Your task to perform on an android device: visit the assistant section in the google photos Image 0: 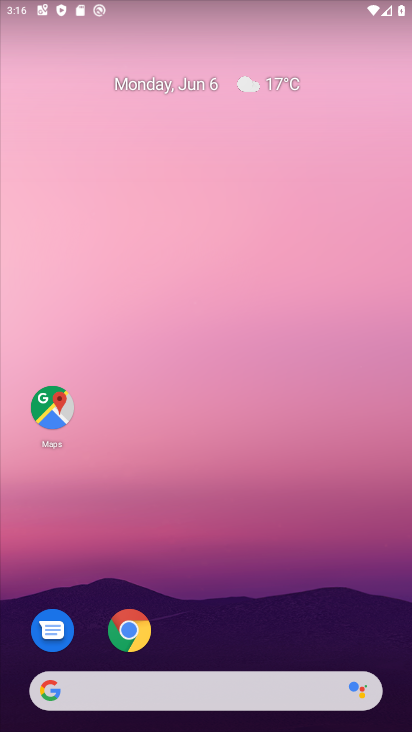
Step 0: drag from (265, 603) to (273, 51)
Your task to perform on an android device: visit the assistant section in the google photos Image 1: 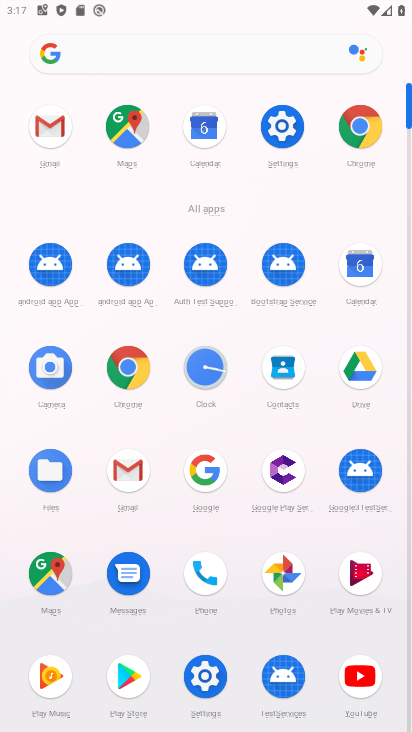
Step 1: click (282, 576)
Your task to perform on an android device: visit the assistant section in the google photos Image 2: 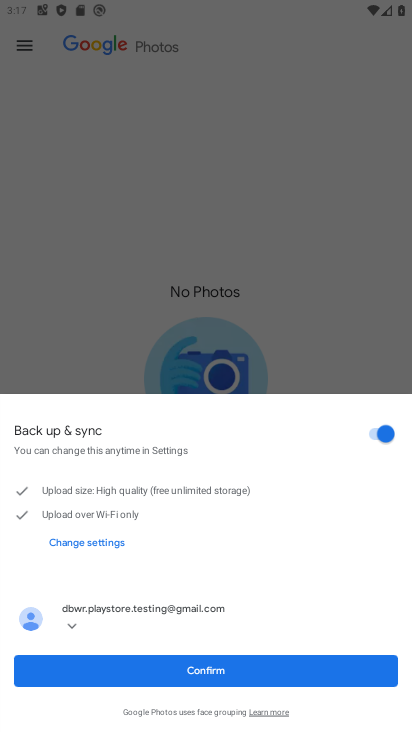
Step 2: click (164, 666)
Your task to perform on an android device: visit the assistant section in the google photos Image 3: 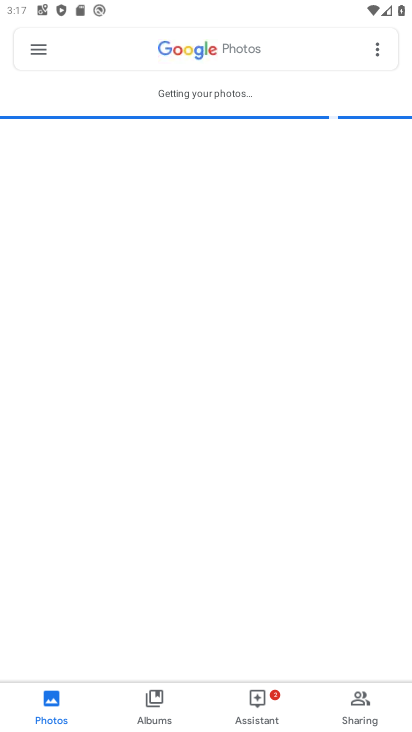
Step 3: click (252, 704)
Your task to perform on an android device: visit the assistant section in the google photos Image 4: 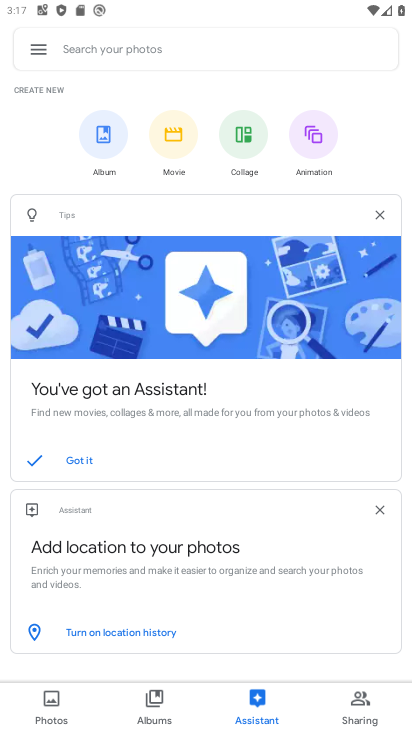
Step 4: task complete